Your task to perform on an android device: turn off translation in the chrome app Image 0: 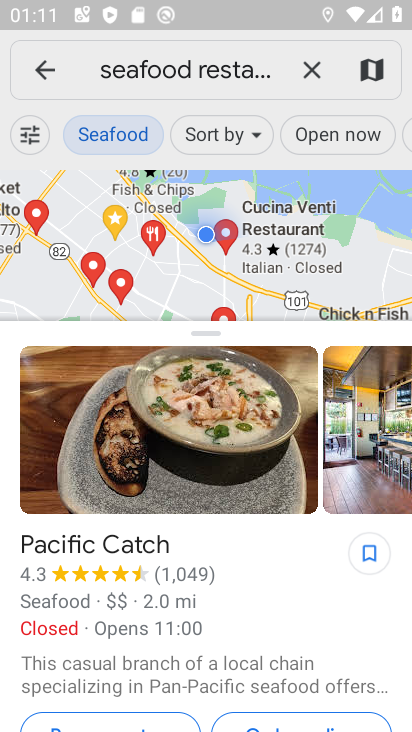
Step 0: click (294, 138)
Your task to perform on an android device: turn off translation in the chrome app Image 1: 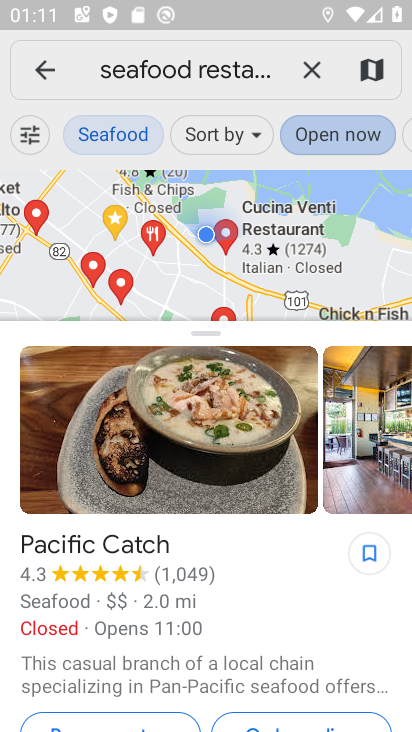
Step 1: press home button
Your task to perform on an android device: turn off translation in the chrome app Image 2: 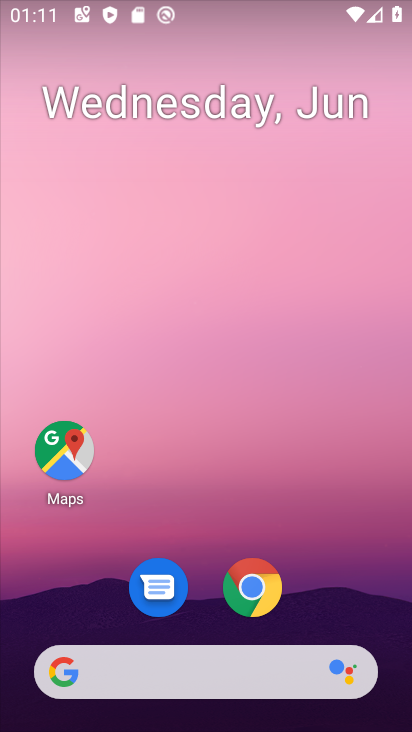
Step 2: drag from (325, 496) to (266, 132)
Your task to perform on an android device: turn off translation in the chrome app Image 3: 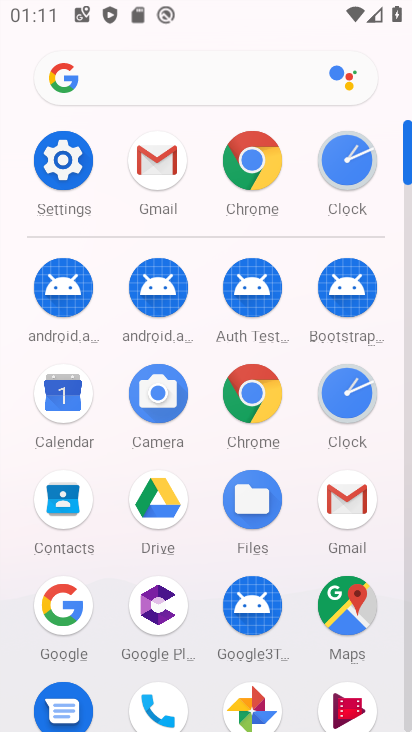
Step 3: click (239, 403)
Your task to perform on an android device: turn off translation in the chrome app Image 4: 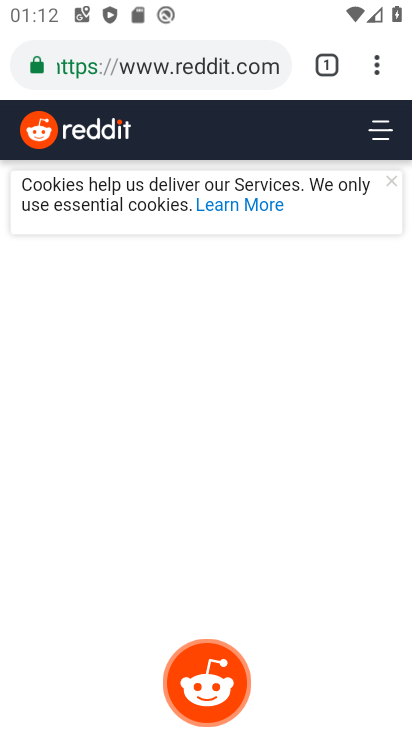
Step 4: drag from (340, 146) to (354, 181)
Your task to perform on an android device: turn off translation in the chrome app Image 5: 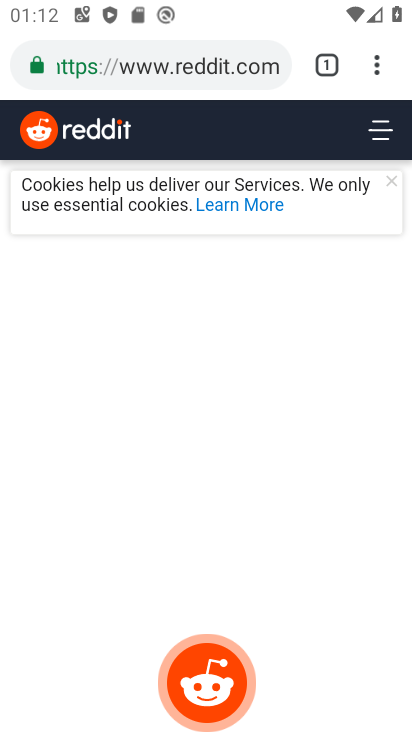
Step 5: drag from (382, 55) to (212, 630)
Your task to perform on an android device: turn off translation in the chrome app Image 6: 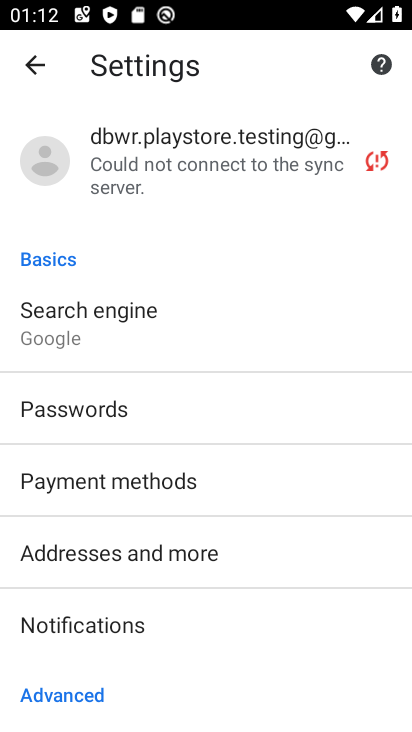
Step 6: drag from (205, 435) to (199, 182)
Your task to perform on an android device: turn off translation in the chrome app Image 7: 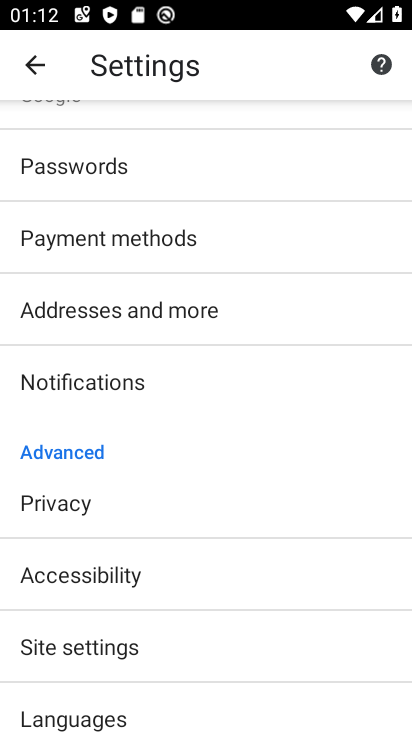
Step 7: click (119, 711)
Your task to perform on an android device: turn off translation in the chrome app Image 8: 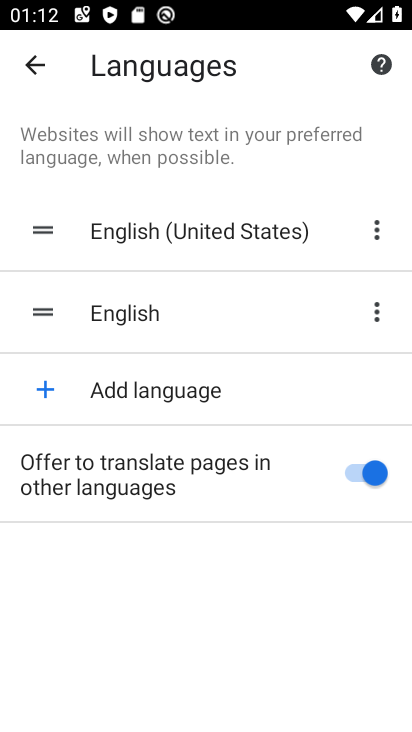
Step 8: click (378, 487)
Your task to perform on an android device: turn off translation in the chrome app Image 9: 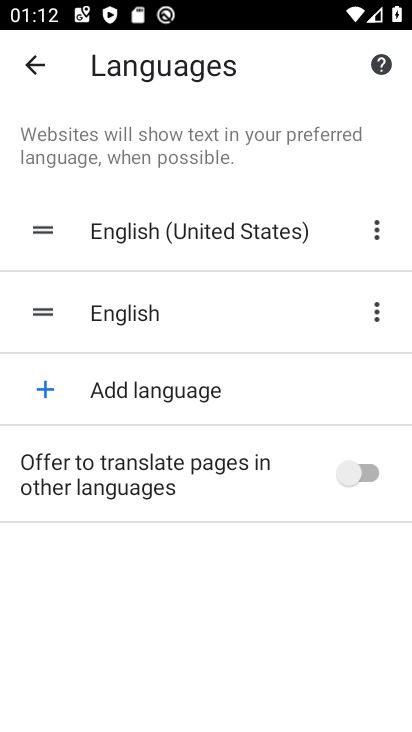
Step 9: task complete